Your task to perform on an android device: toggle notification dots Image 0: 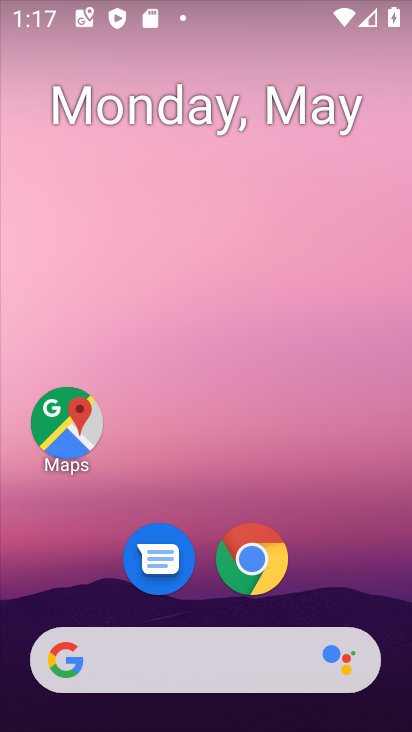
Step 0: drag from (236, 729) to (330, 149)
Your task to perform on an android device: toggle notification dots Image 1: 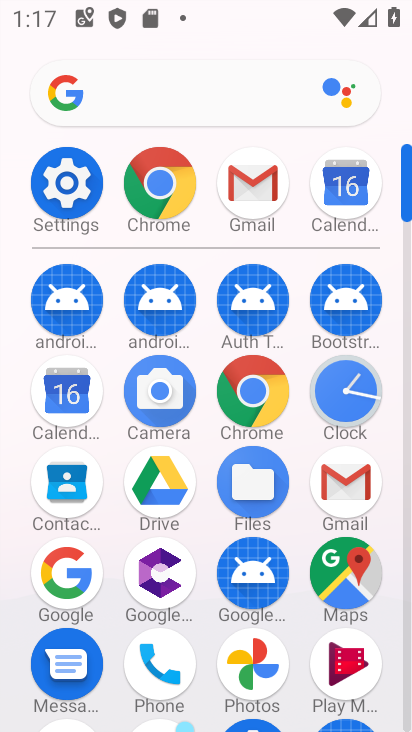
Step 1: click (60, 178)
Your task to perform on an android device: toggle notification dots Image 2: 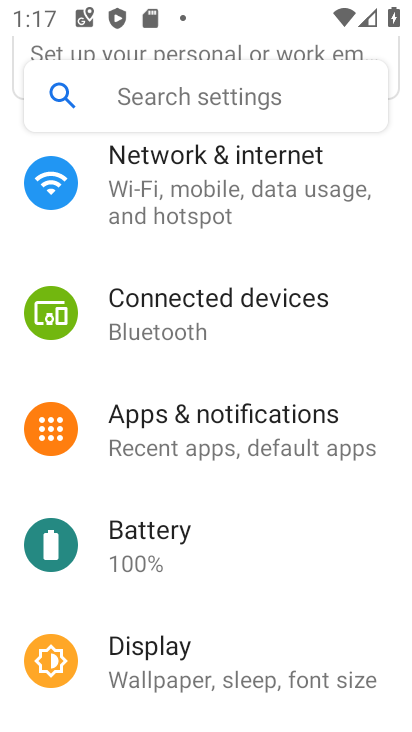
Step 2: click (311, 413)
Your task to perform on an android device: toggle notification dots Image 3: 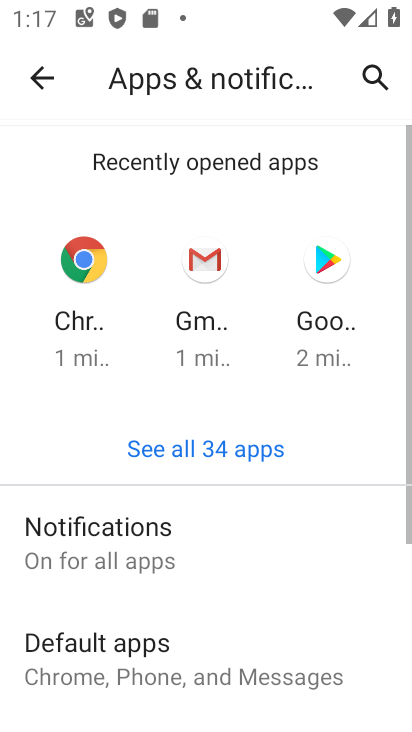
Step 3: drag from (268, 670) to (294, 67)
Your task to perform on an android device: toggle notification dots Image 4: 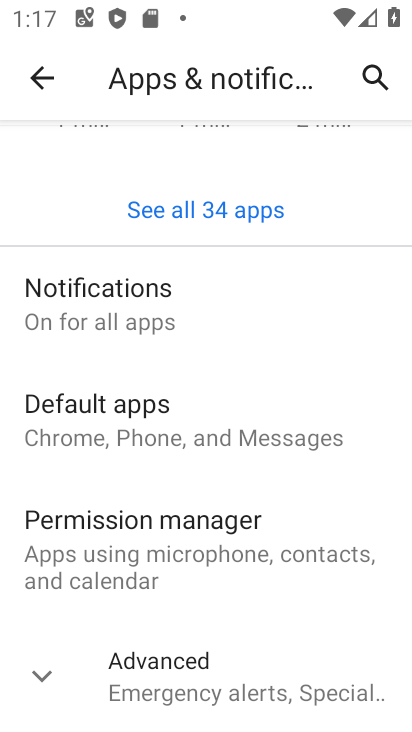
Step 4: click (209, 304)
Your task to perform on an android device: toggle notification dots Image 5: 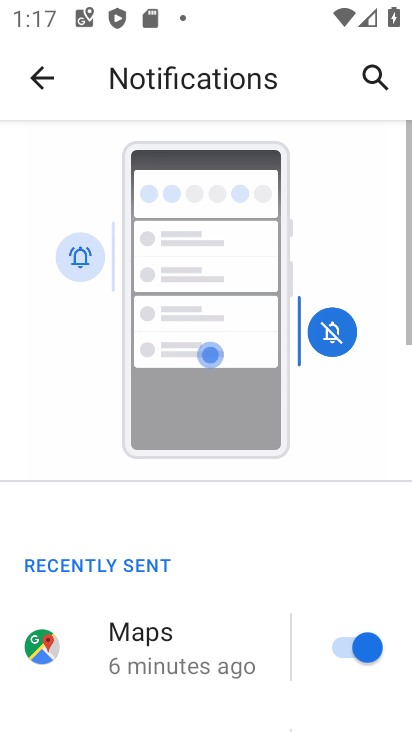
Step 5: drag from (269, 646) to (310, 45)
Your task to perform on an android device: toggle notification dots Image 6: 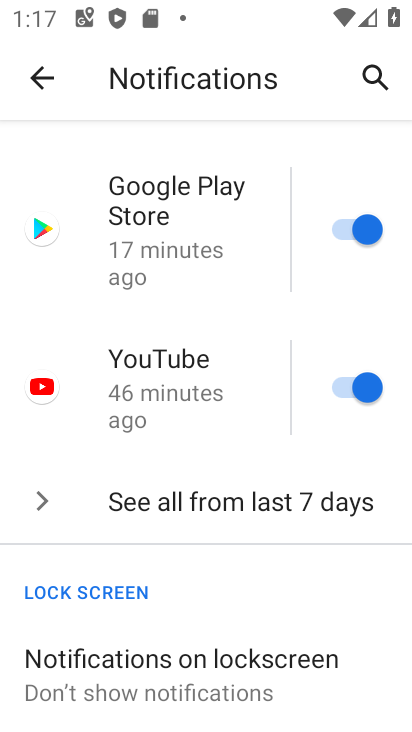
Step 6: drag from (270, 595) to (253, 16)
Your task to perform on an android device: toggle notification dots Image 7: 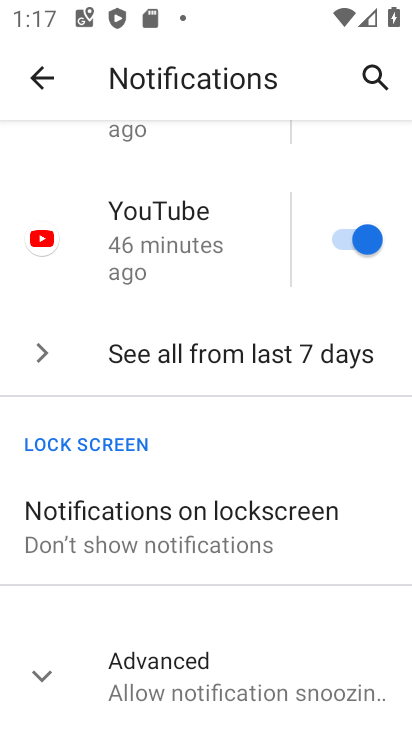
Step 7: click (293, 685)
Your task to perform on an android device: toggle notification dots Image 8: 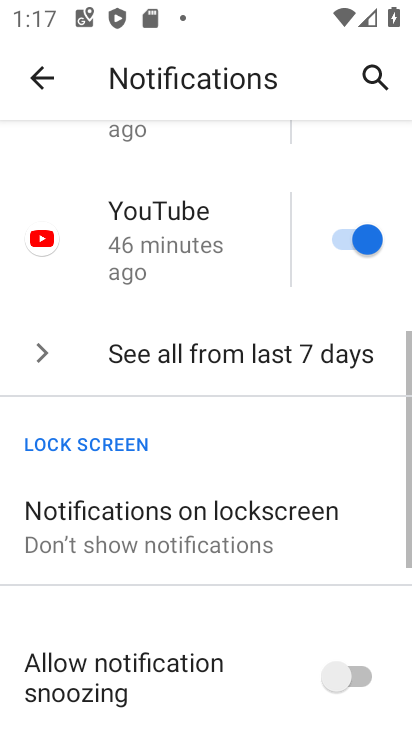
Step 8: drag from (324, 664) to (309, 198)
Your task to perform on an android device: toggle notification dots Image 9: 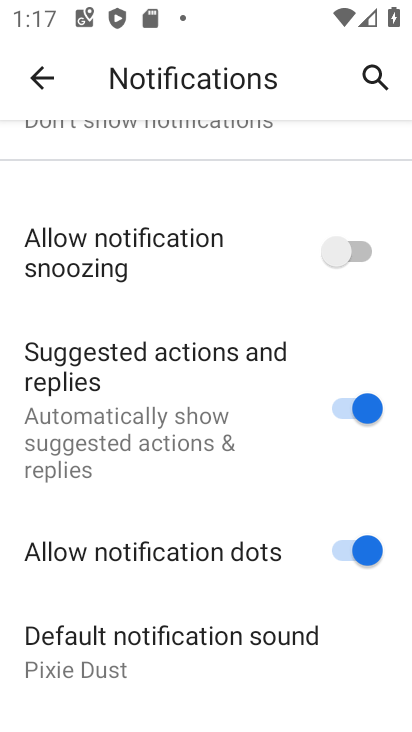
Step 9: drag from (369, 559) to (404, 467)
Your task to perform on an android device: toggle notification dots Image 10: 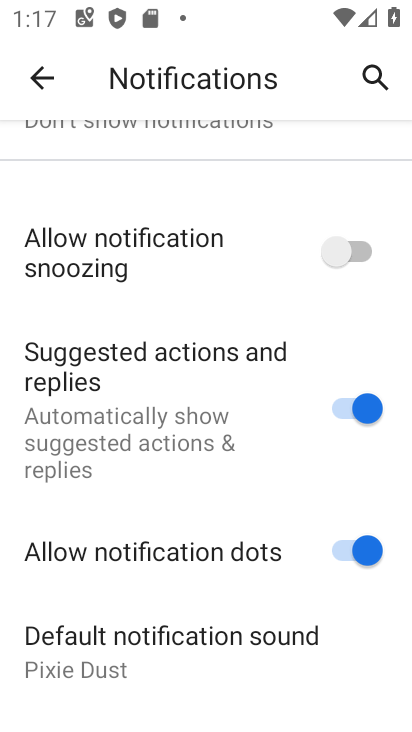
Step 10: click (379, 560)
Your task to perform on an android device: toggle notification dots Image 11: 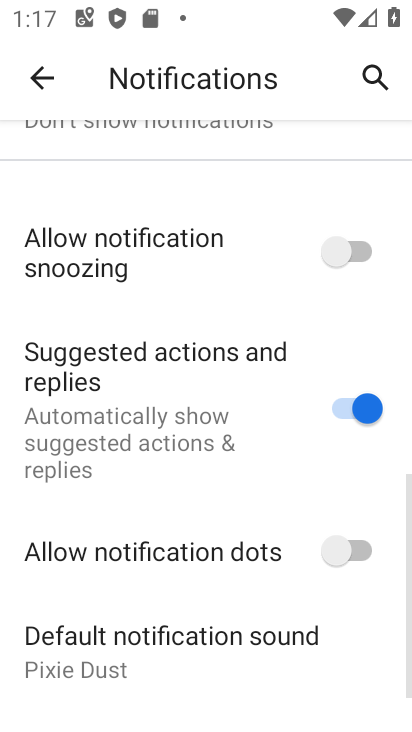
Step 11: task complete